Your task to perform on an android device: check google app version Image 0: 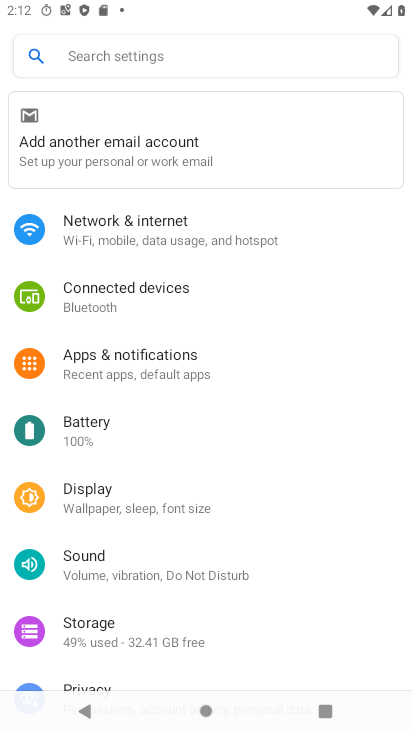
Step 0: press home button
Your task to perform on an android device: check google app version Image 1: 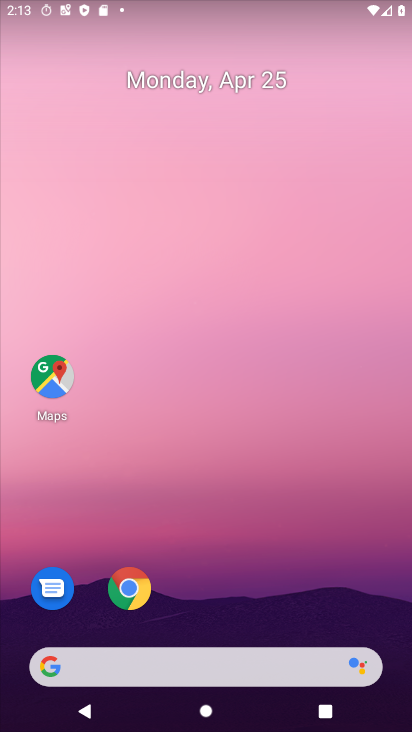
Step 1: drag from (262, 637) to (342, 255)
Your task to perform on an android device: check google app version Image 2: 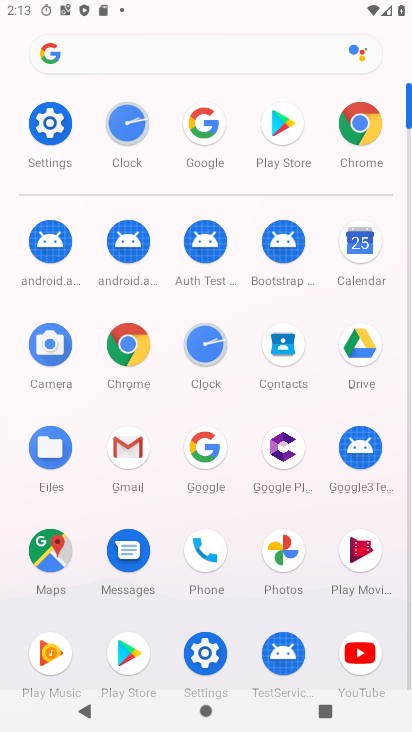
Step 2: click (205, 459)
Your task to perform on an android device: check google app version Image 3: 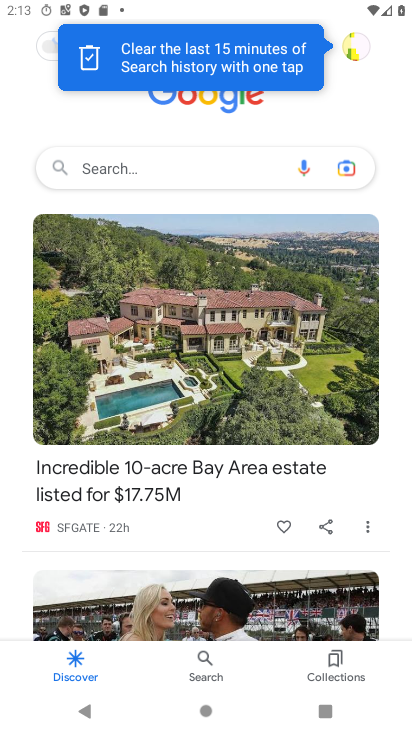
Step 3: click (359, 51)
Your task to perform on an android device: check google app version Image 4: 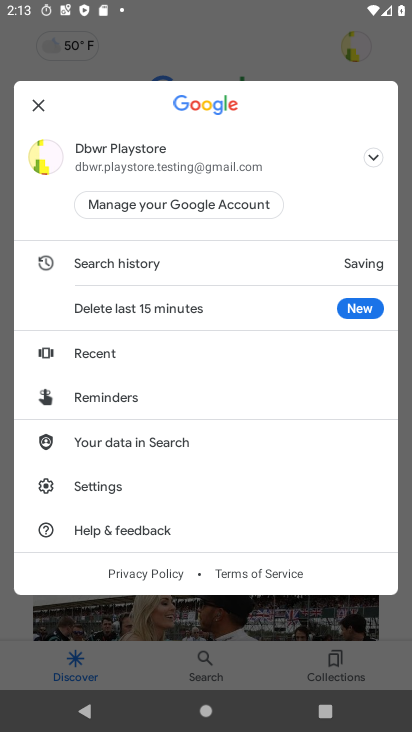
Step 4: click (147, 497)
Your task to perform on an android device: check google app version Image 5: 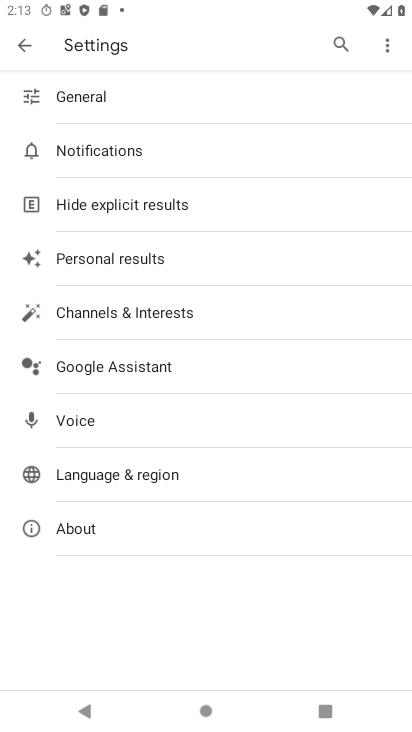
Step 5: click (85, 528)
Your task to perform on an android device: check google app version Image 6: 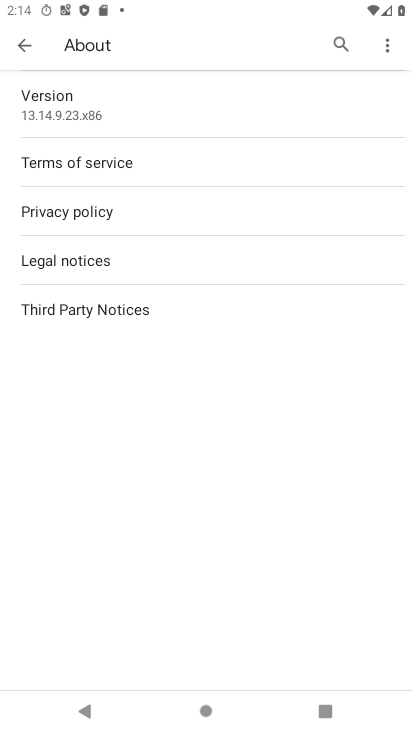
Step 6: task complete